Your task to perform on an android device: Go to battery settings Image 0: 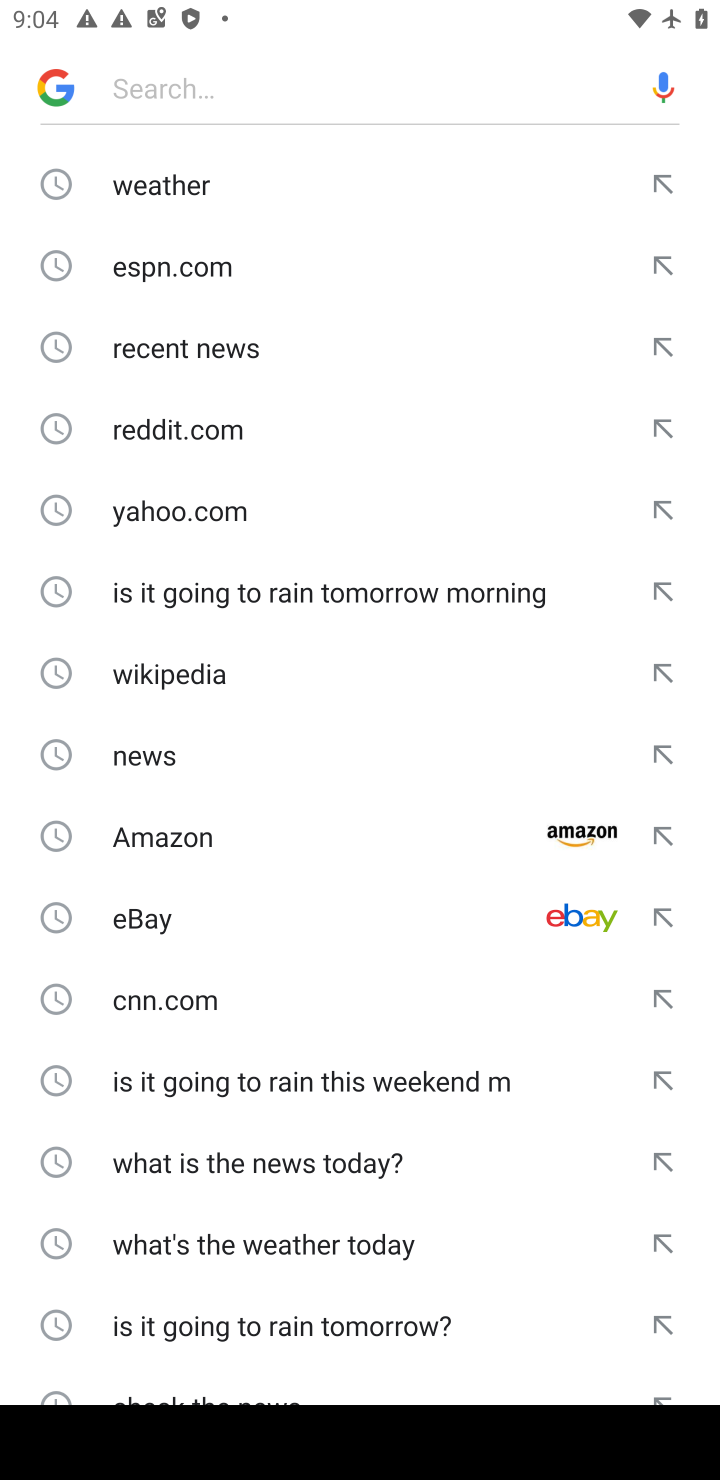
Step 0: press home button
Your task to perform on an android device: Go to battery settings Image 1: 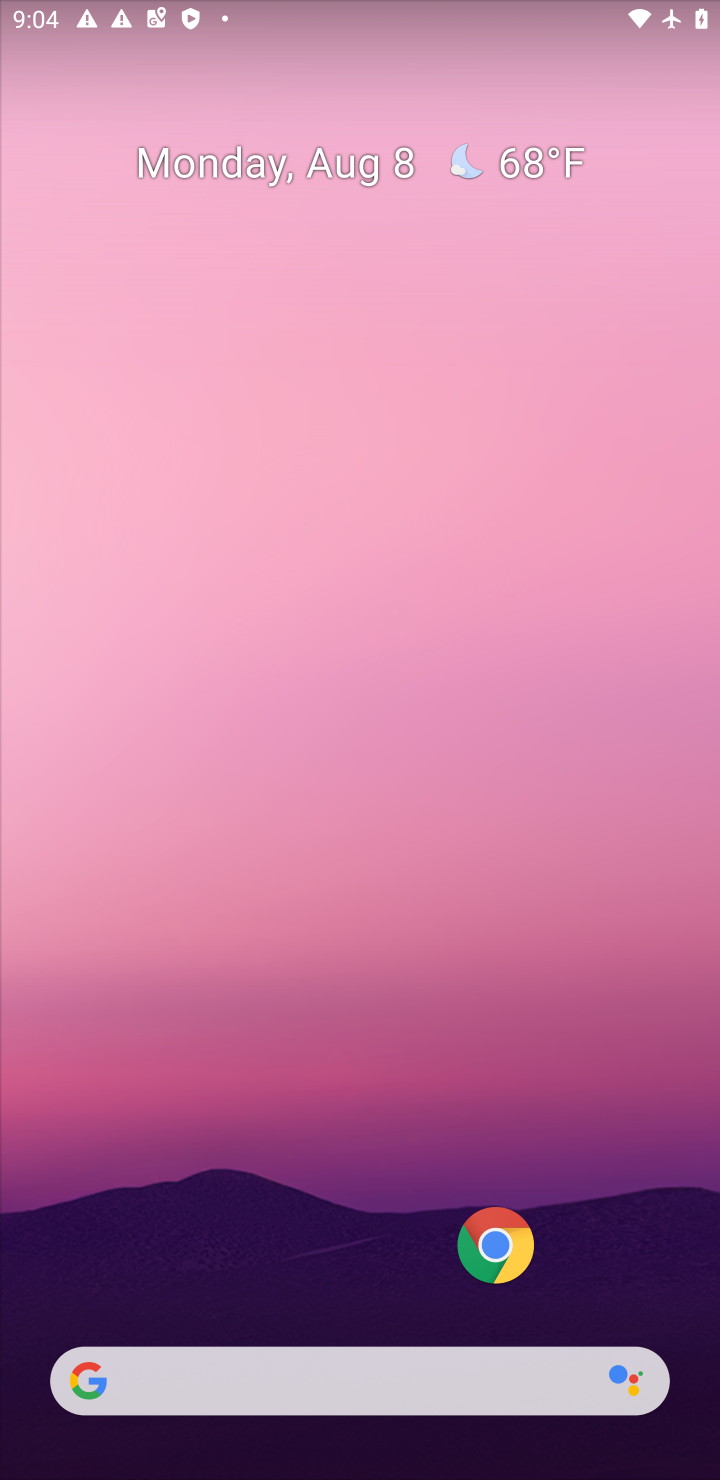
Step 1: drag from (286, 1220) to (279, 3)
Your task to perform on an android device: Go to battery settings Image 2: 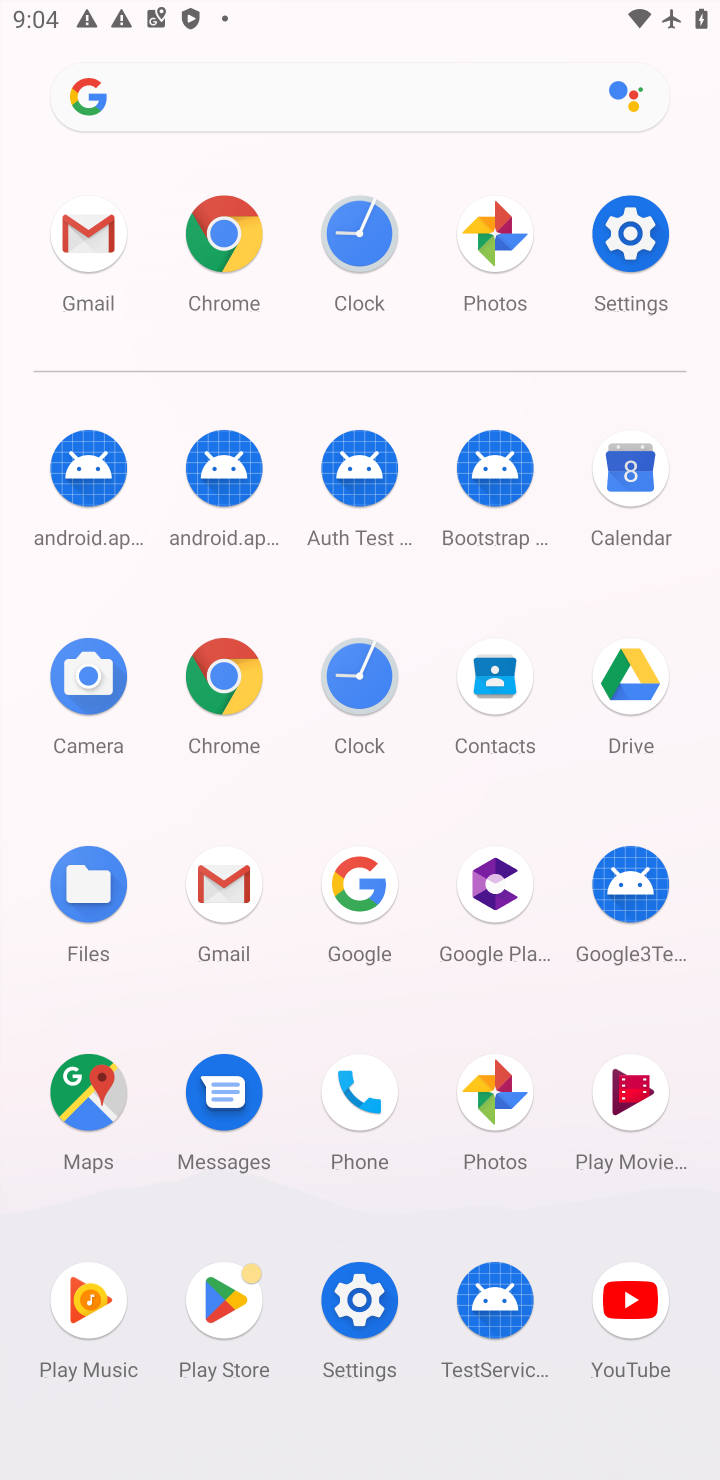
Step 2: click (347, 1325)
Your task to perform on an android device: Go to battery settings Image 3: 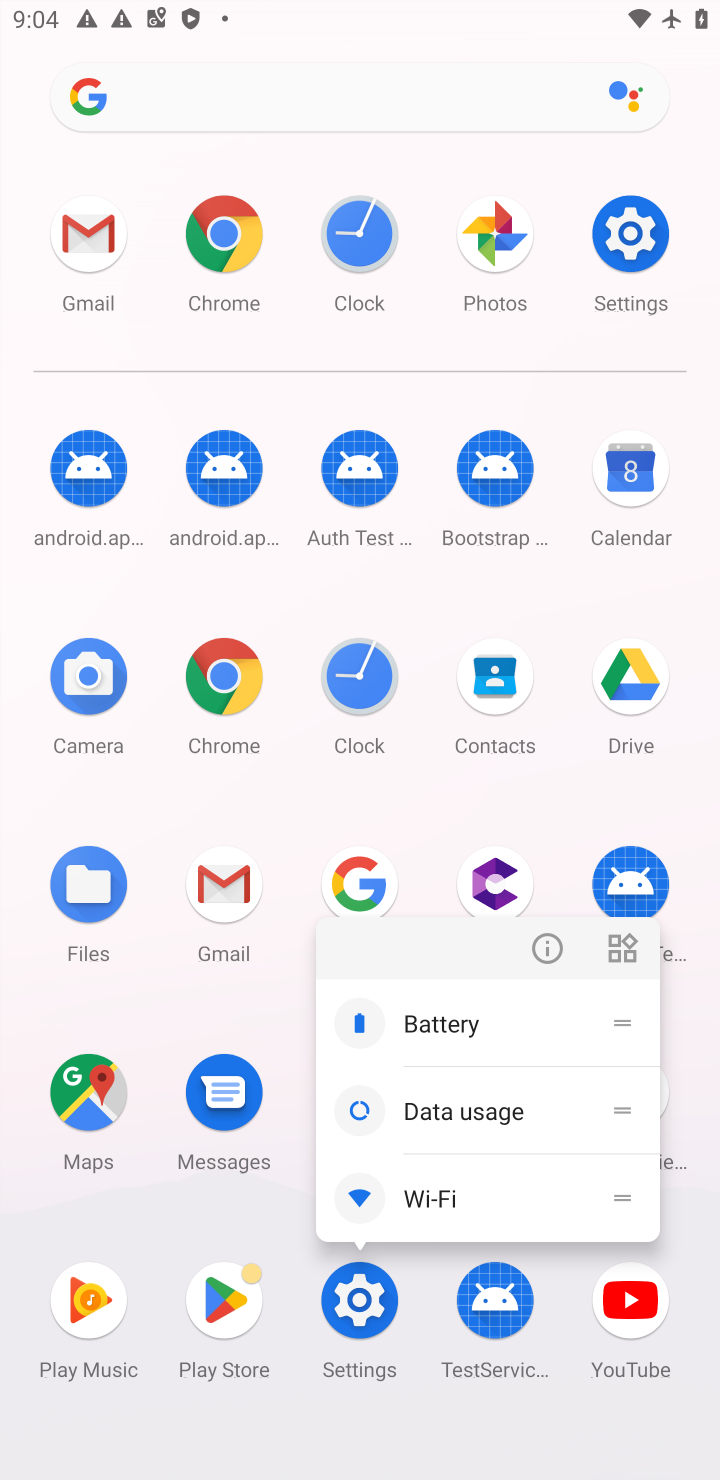
Step 3: click (351, 1317)
Your task to perform on an android device: Go to battery settings Image 4: 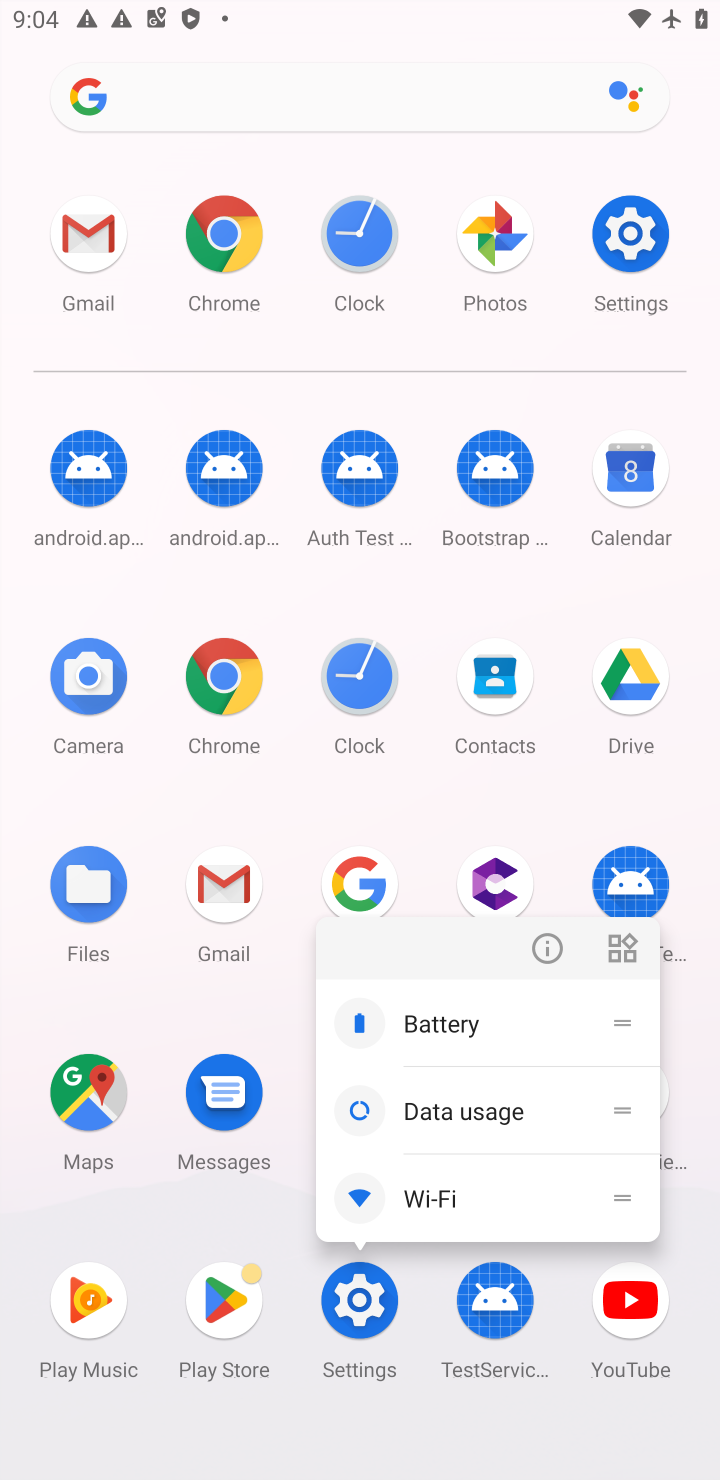
Step 4: click (351, 1317)
Your task to perform on an android device: Go to battery settings Image 5: 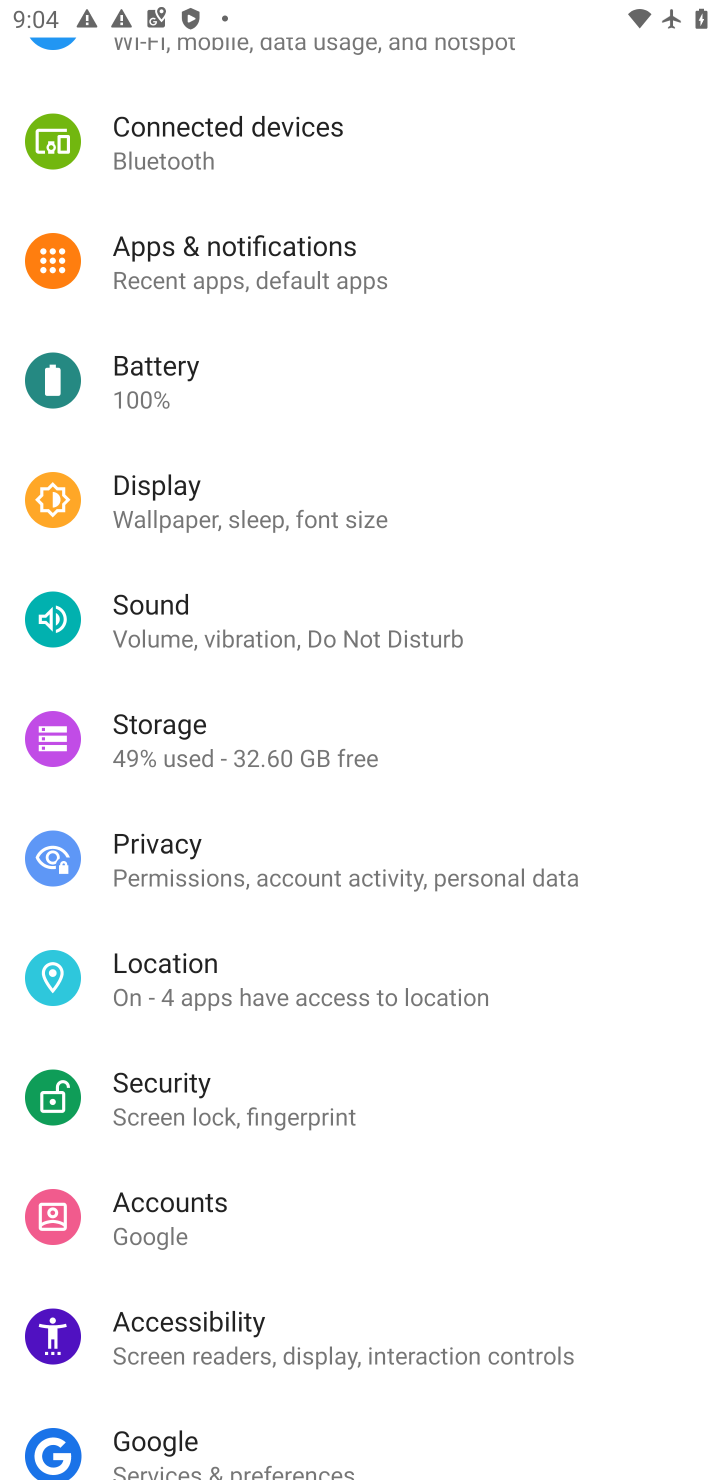
Step 5: click (167, 388)
Your task to perform on an android device: Go to battery settings Image 6: 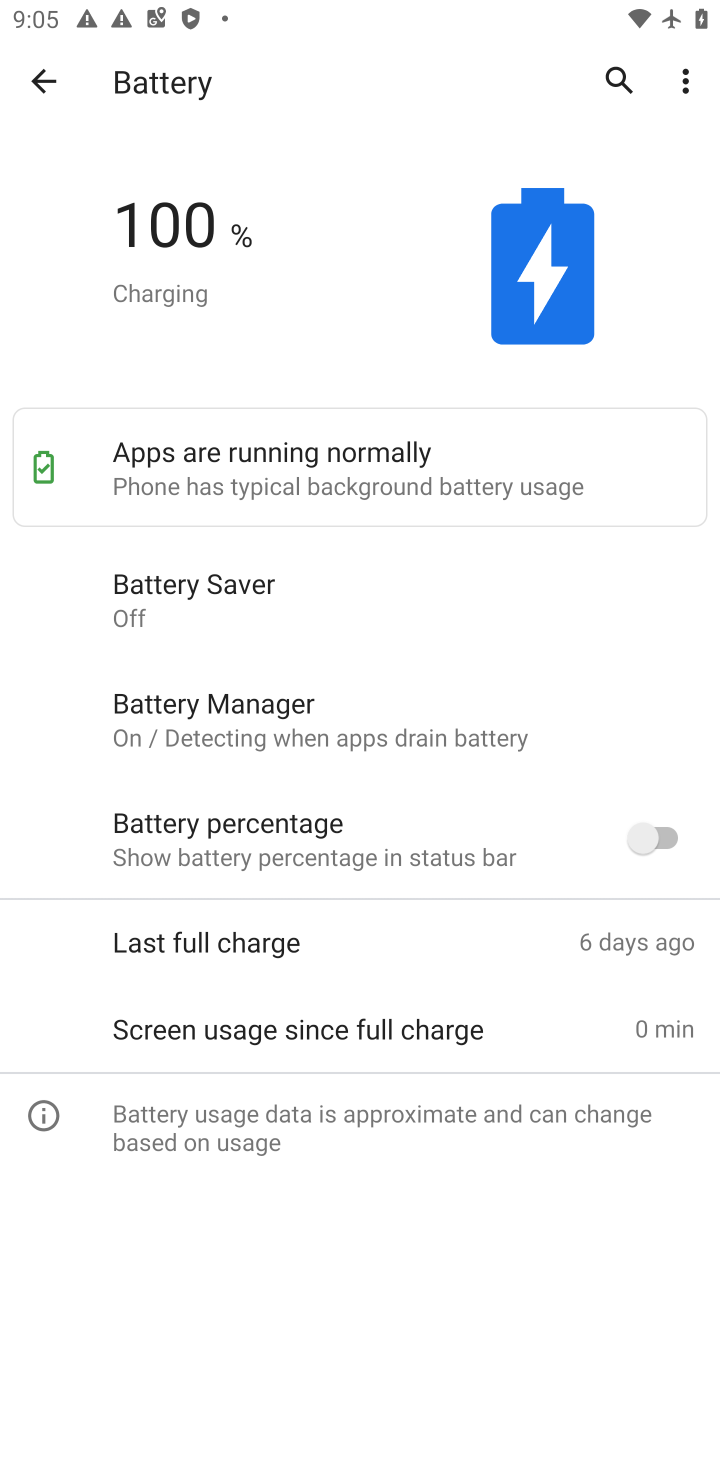
Step 6: task complete